Your task to perform on an android device: visit the assistant section in the google photos Image 0: 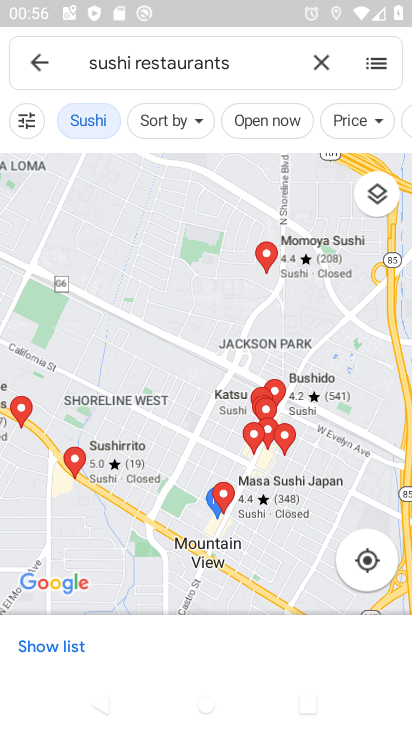
Step 0: press home button
Your task to perform on an android device: visit the assistant section in the google photos Image 1: 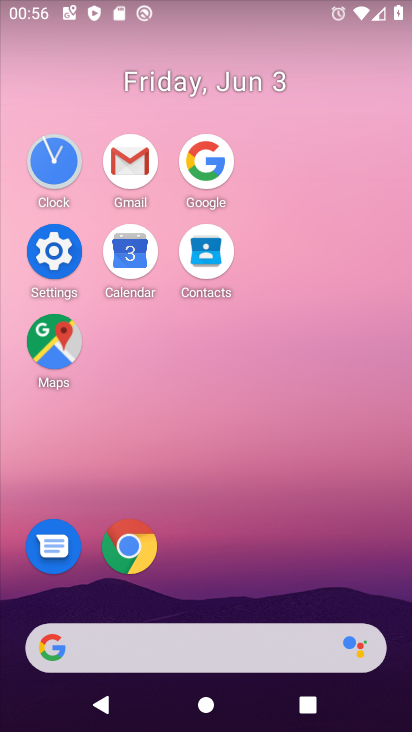
Step 1: drag from (268, 523) to (331, 94)
Your task to perform on an android device: visit the assistant section in the google photos Image 2: 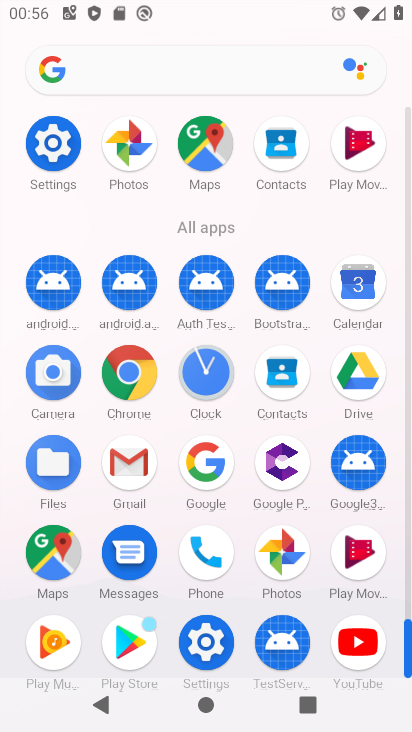
Step 2: drag from (120, 140) to (146, 367)
Your task to perform on an android device: visit the assistant section in the google photos Image 3: 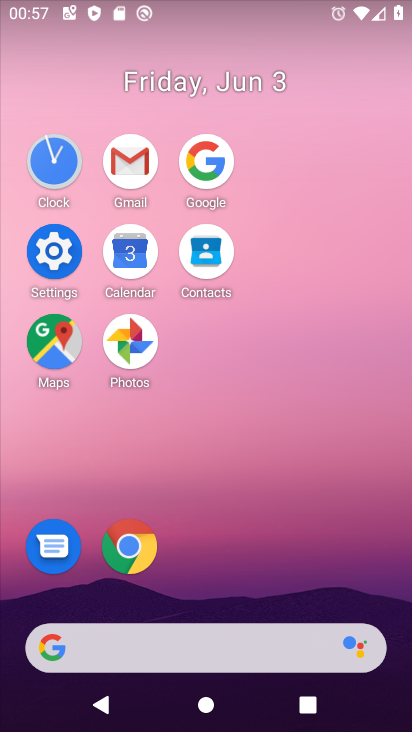
Step 3: click (136, 343)
Your task to perform on an android device: visit the assistant section in the google photos Image 4: 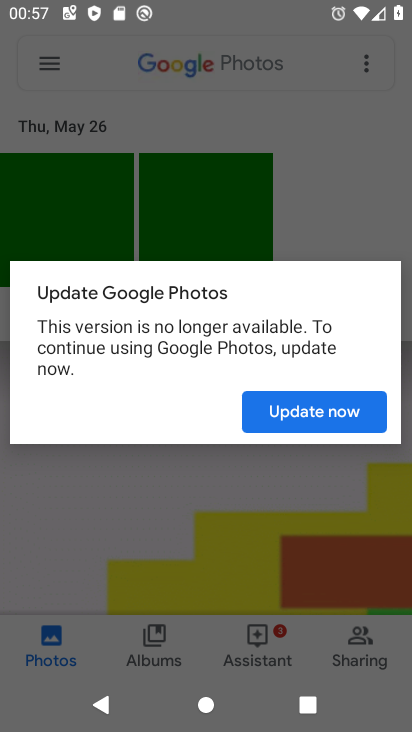
Step 4: click (347, 409)
Your task to perform on an android device: visit the assistant section in the google photos Image 5: 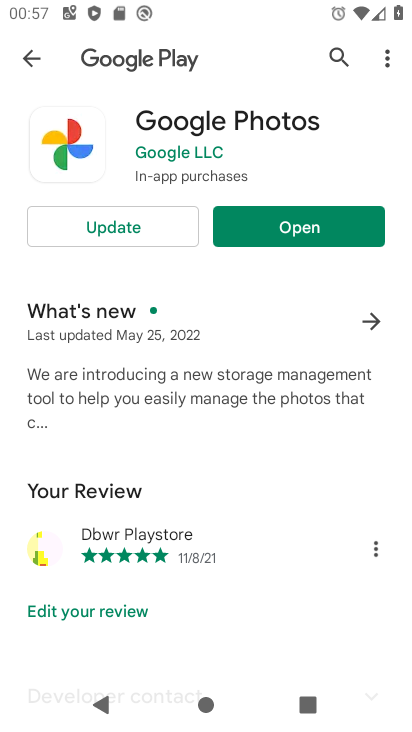
Step 5: click (269, 224)
Your task to perform on an android device: visit the assistant section in the google photos Image 6: 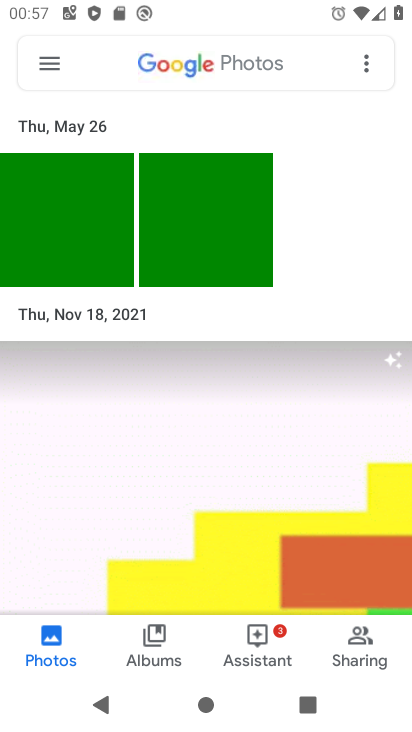
Step 6: click (278, 642)
Your task to perform on an android device: visit the assistant section in the google photos Image 7: 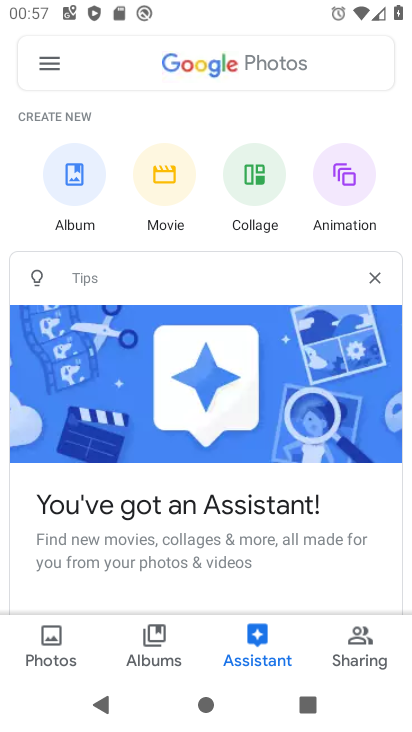
Step 7: task complete